Your task to perform on an android device: change the clock style Image 0: 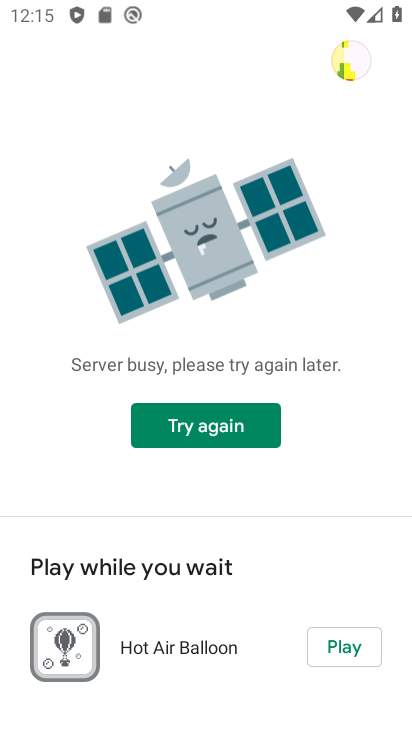
Step 0: press home button
Your task to perform on an android device: change the clock style Image 1: 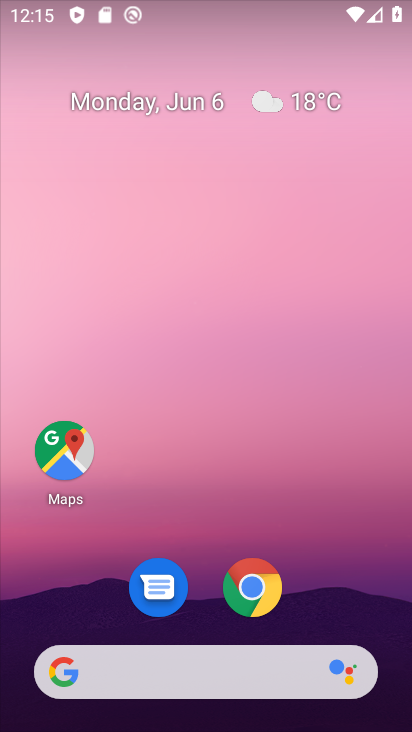
Step 1: drag from (373, 495) to (353, 104)
Your task to perform on an android device: change the clock style Image 2: 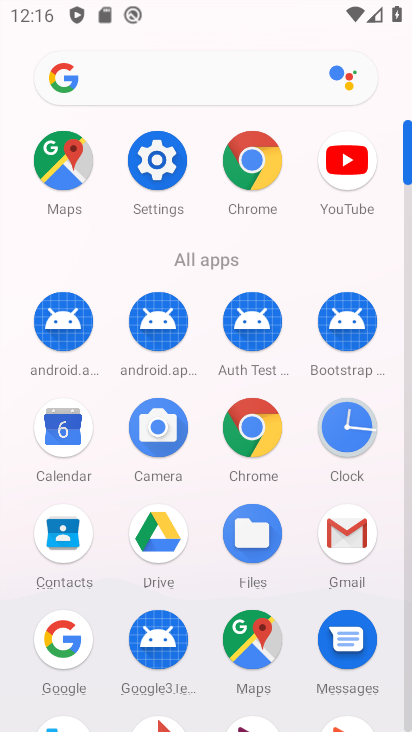
Step 2: click (349, 449)
Your task to perform on an android device: change the clock style Image 3: 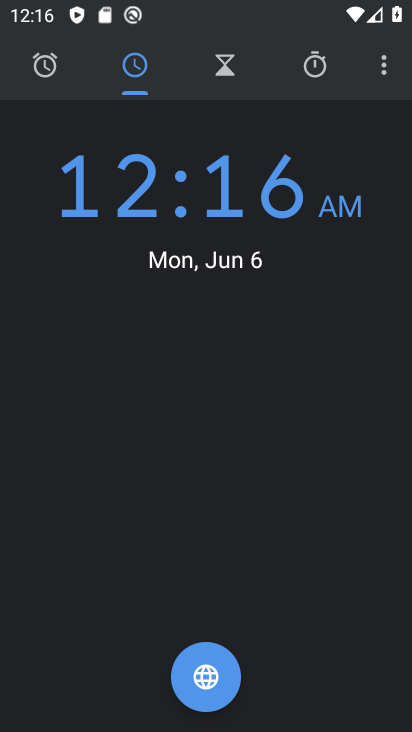
Step 3: drag from (387, 80) to (253, 120)
Your task to perform on an android device: change the clock style Image 4: 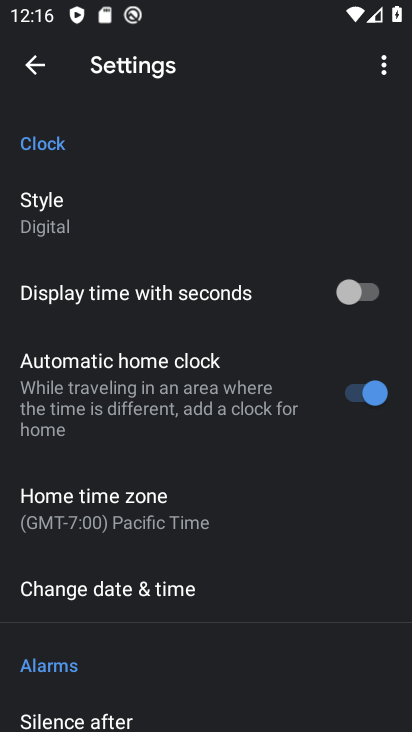
Step 4: drag from (244, 587) to (275, 205)
Your task to perform on an android device: change the clock style Image 5: 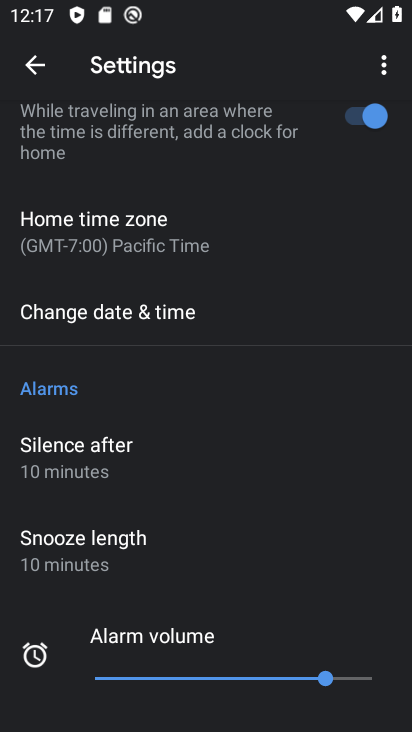
Step 5: drag from (271, 529) to (316, 302)
Your task to perform on an android device: change the clock style Image 6: 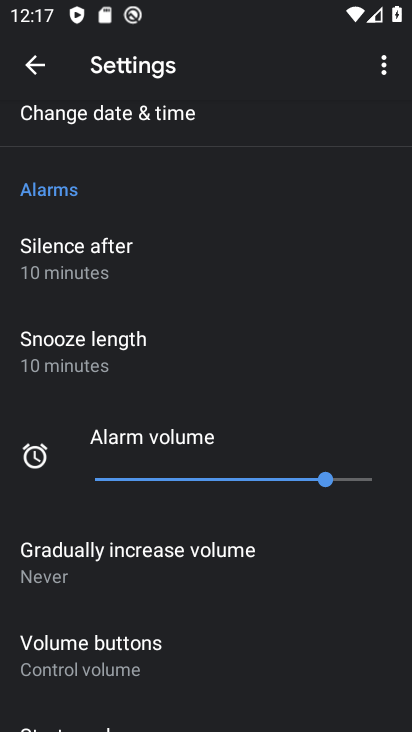
Step 6: drag from (289, 184) to (290, 633)
Your task to perform on an android device: change the clock style Image 7: 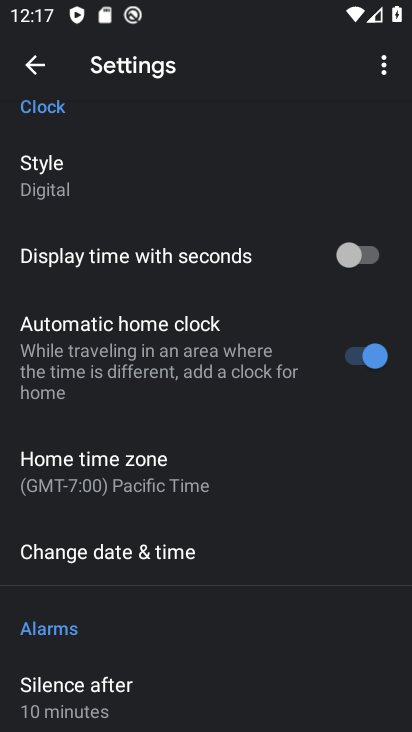
Step 7: click (42, 179)
Your task to perform on an android device: change the clock style Image 8: 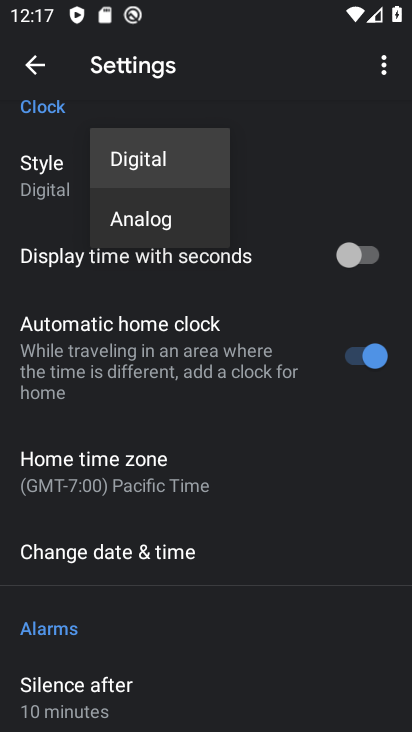
Step 8: click (126, 226)
Your task to perform on an android device: change the clock style Image 9: 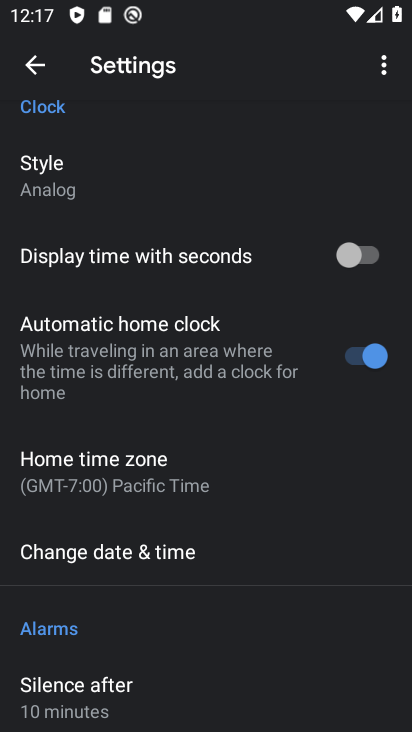
Step 9: task complete